Your task to perform on an android device: check out phone information Image 0: 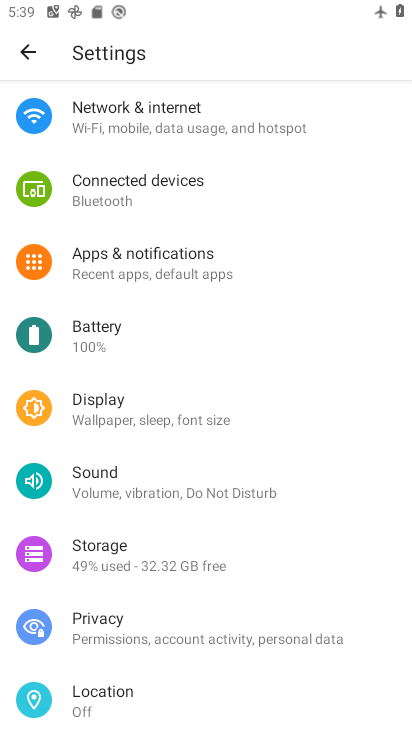
Step 0: press home button
Your task to perform on an android device: check out phone information Image 1: 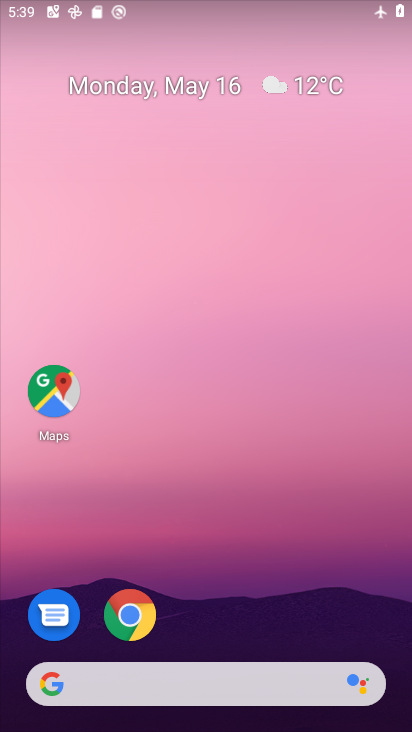
Step 1: drag from (217, 631) to (223, 145)
Your task to perform on an android device: check out phone information Image 2: 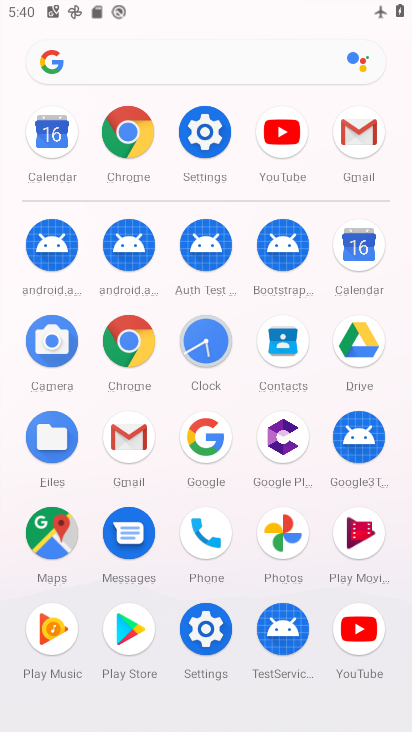
Step 2: click (193, 137)
Your task to perform on an android device: check out phone information Image 3: 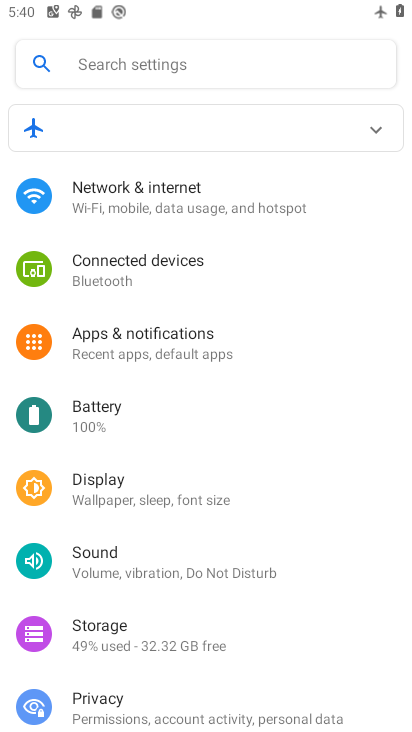
Step 3: drag from (157, 670) to (230, 196)
Your task to perform on an android device: check out phone information Image 4: 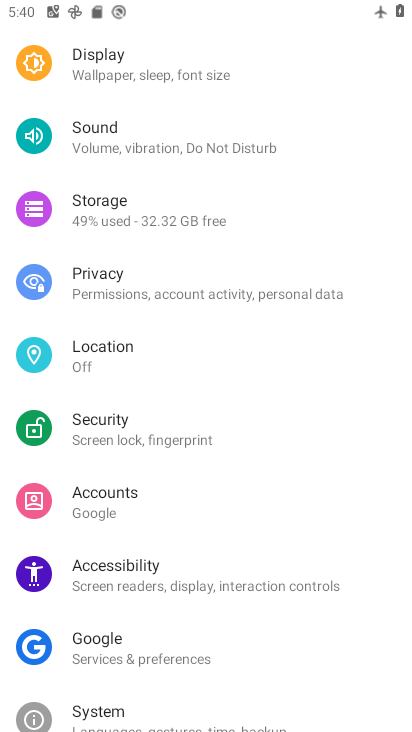
Step 4: drag from (129, 686) to (226, 140)
Your task to perform on an android device: check out phone information Image 5: 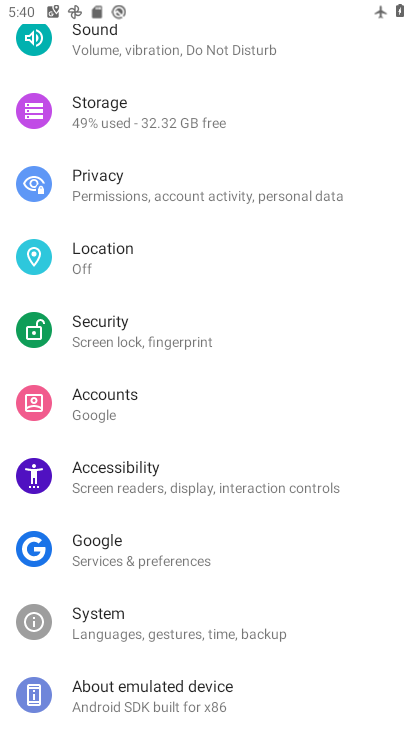
Step 5: click (133, 702)
Your task to perform on an android device: check out phone information Image 6: 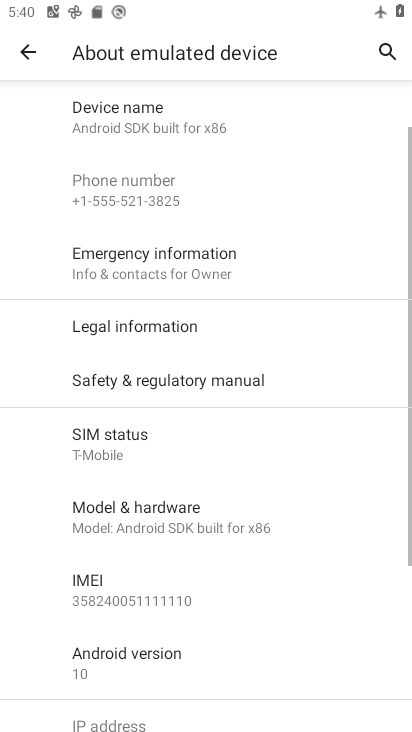
Step 6: task complete